Your task to perform on an android device: turn pop-ups on in chrome Image 0: 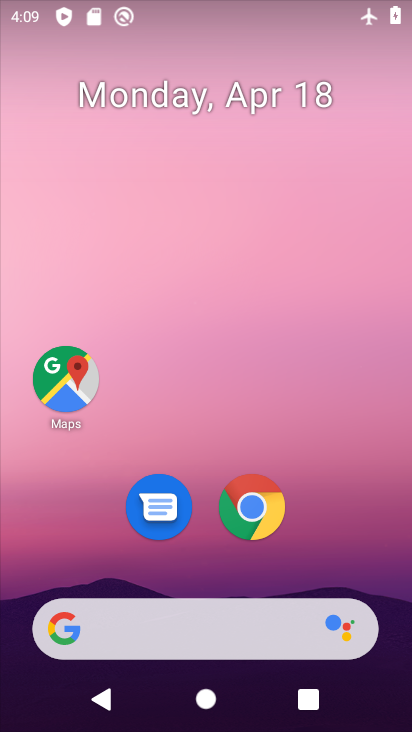
Step 0: drag from (273, 599) to (304, 53)
Your task to perform on an android device: turn pop-ups on in chrome Image 1: 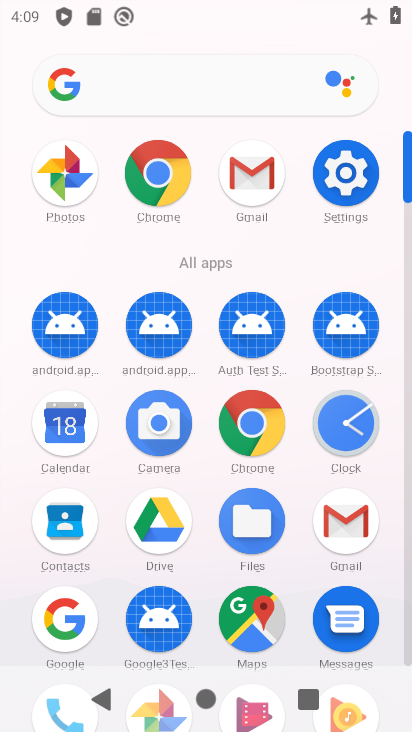
Step 1: drag from (353, 580) to (388, 4)
Your task to perform on an android device: turn pop-ups on in chrome Image 2: 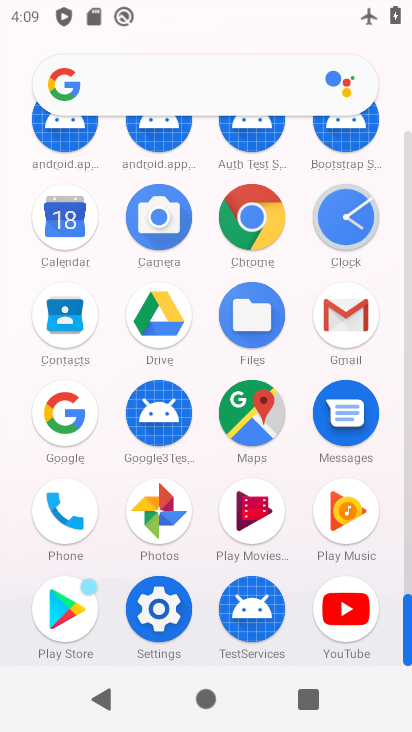
Step 2: click (254, 232)
Your task to perform on an android device: turn pop-ups on in chrome Image 3: 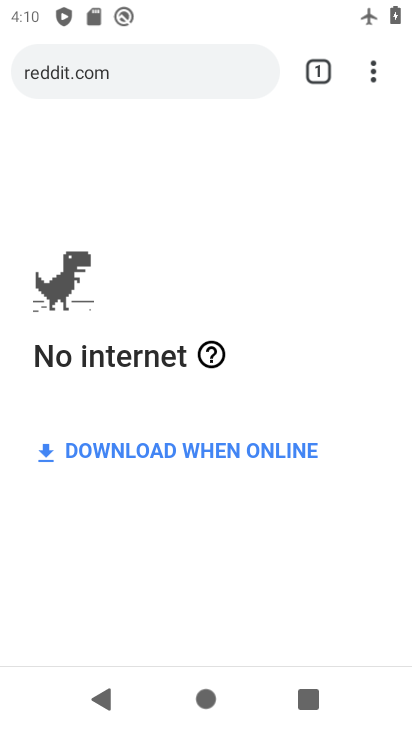
Step 3: task complete